Your task to perform on an android device: turn on the 24-hour format for clock Image 0: 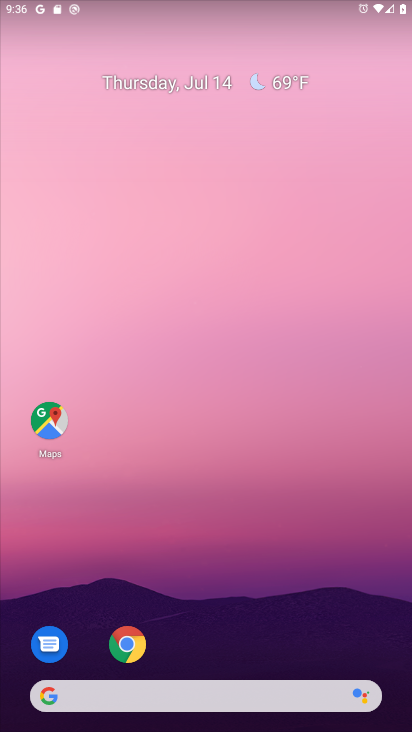
Step 0: drag from (230, 629) to (213, 167)
Your task to perform on an android device: turn on the 24-hour format for clock Image 1: 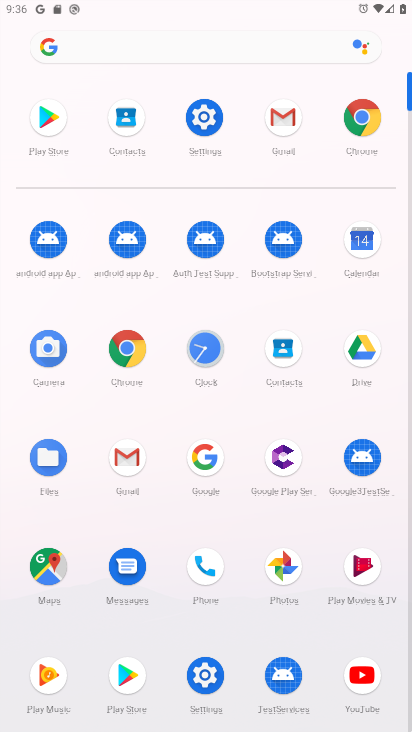
Step 1: click (208, 353)
Your task to perform on an android device: turn on the 24-hour format for clock Image 2: 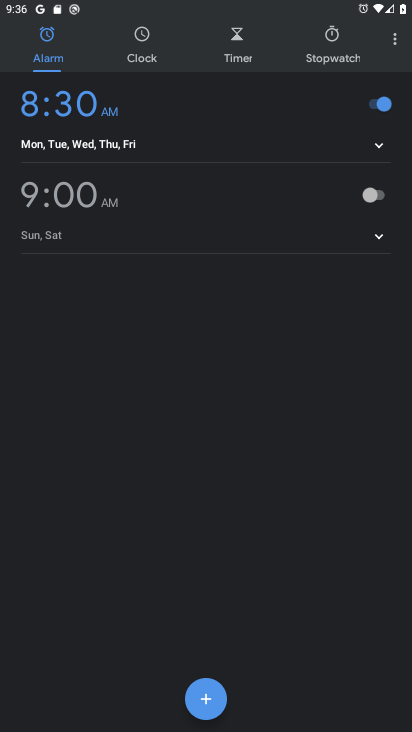
Step 2: click (400, 51)
Your task to perform on an android device: turn on the 24-hour format for clock Image 3: 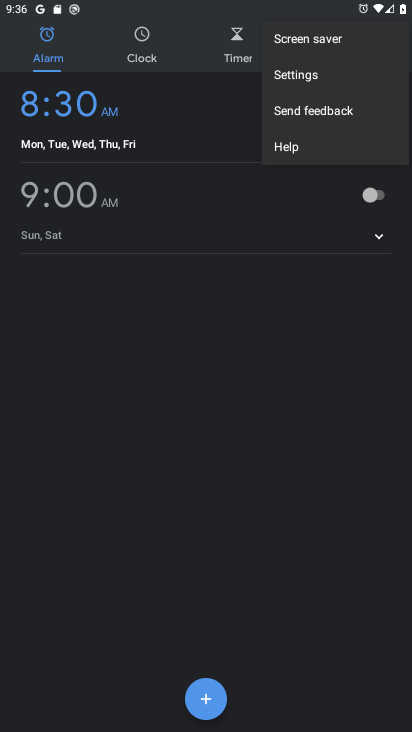
Step 3: click (306, 84)
Your task to perform on an android device: turn on the 24-hour format for clock Image 4: 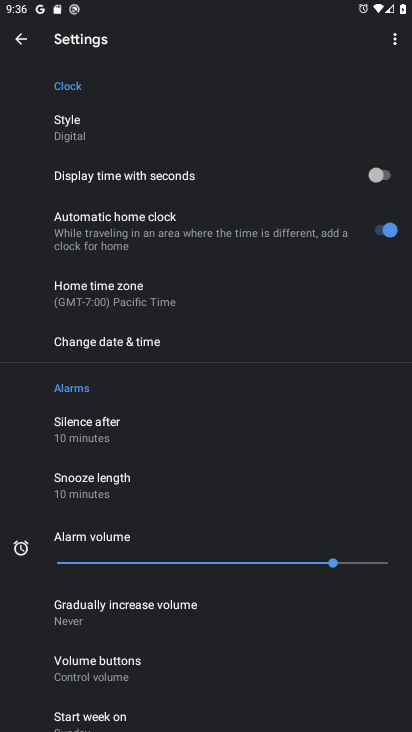
Step 4: click (192, 348)
Your task to perform on an android device: turn on the 24-hour format for clock Image 5: 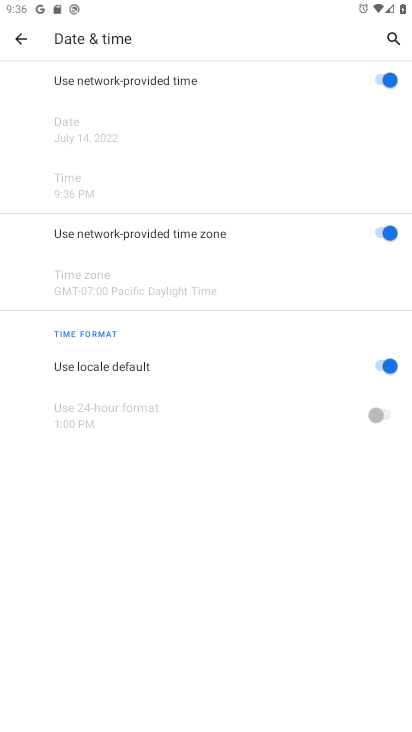
Step 5: click (383, 363)
Your task to perform on an android device: turn on the 24-hour format for clock Image 6: 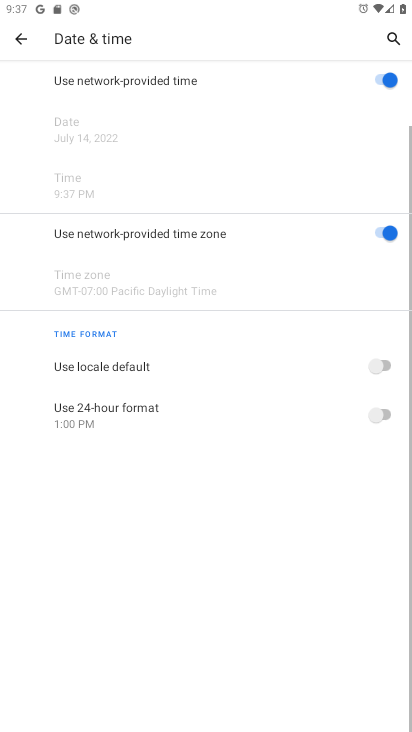
Step 6: click (382, 411)
Your task to perform on an android device: turn on the 24-hour format for clock Image 7: 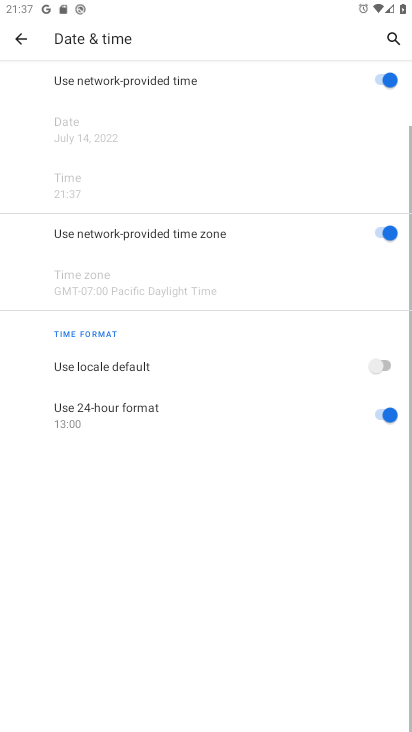
Step 7: click (382, 411)
Your task to perform on an android device: turn on the 24-hour format for clock Image 8: 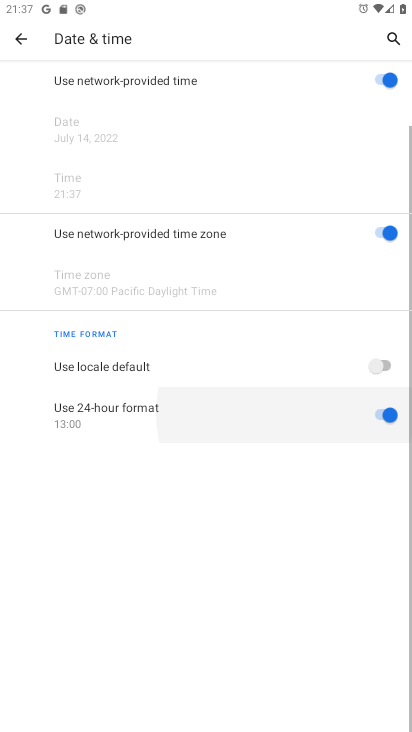
Step 8: click (382, 411)
Your task to perform on an android device: turn on the 24-hour format for clock Image 9: 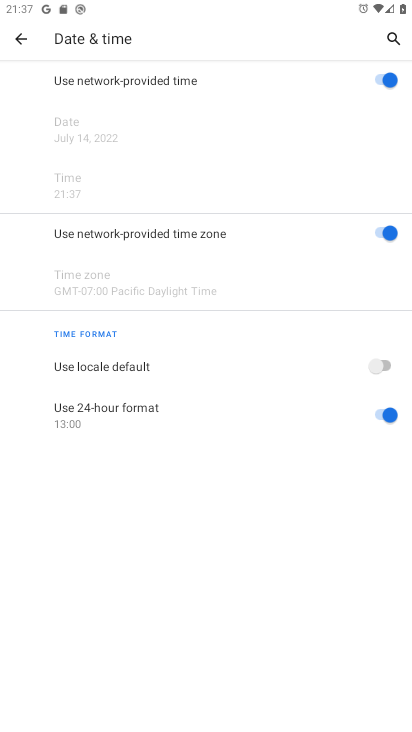
Step 9: task complete